Your task to perform on an android device: Check the weather Image 0: 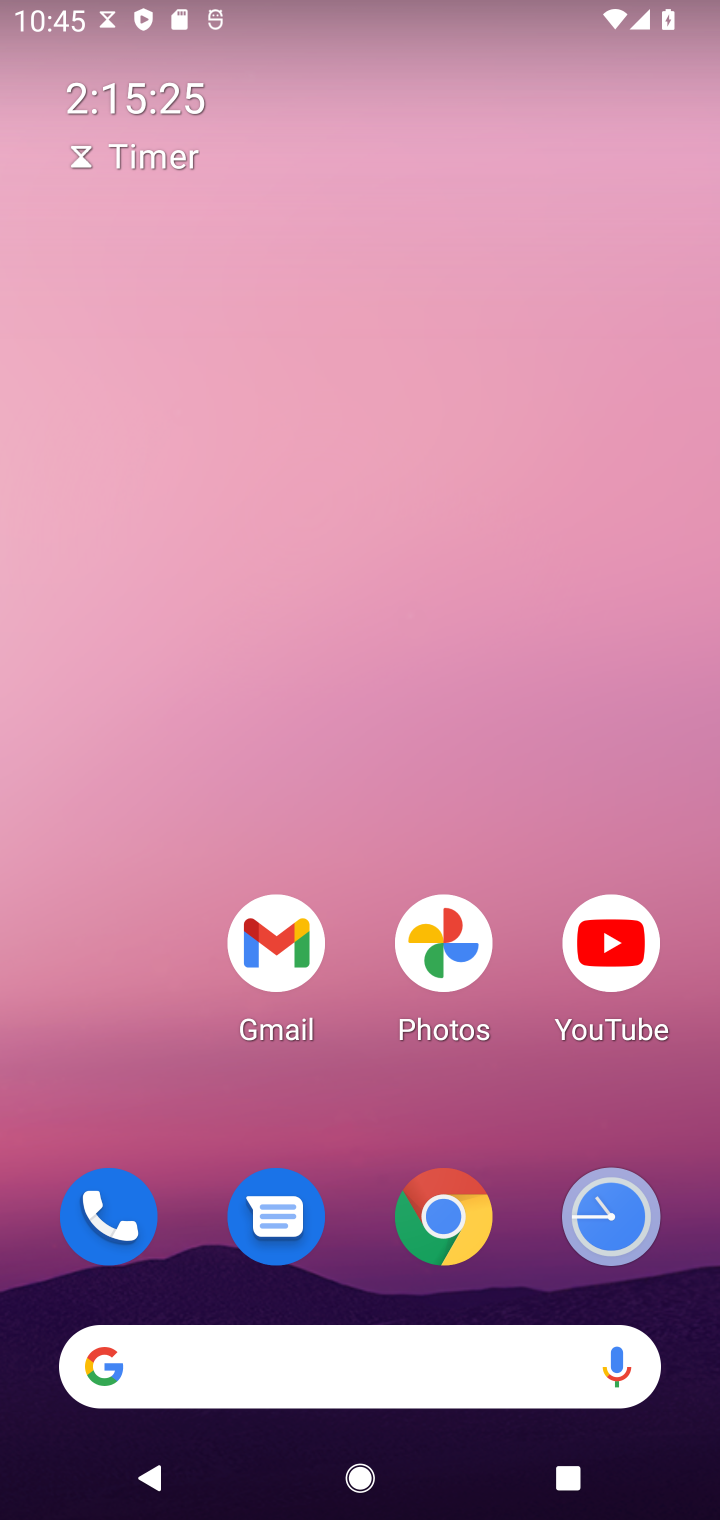
Step 0: click (339, 1358)
Your task to perform on an android device: Check the weather Image 1: 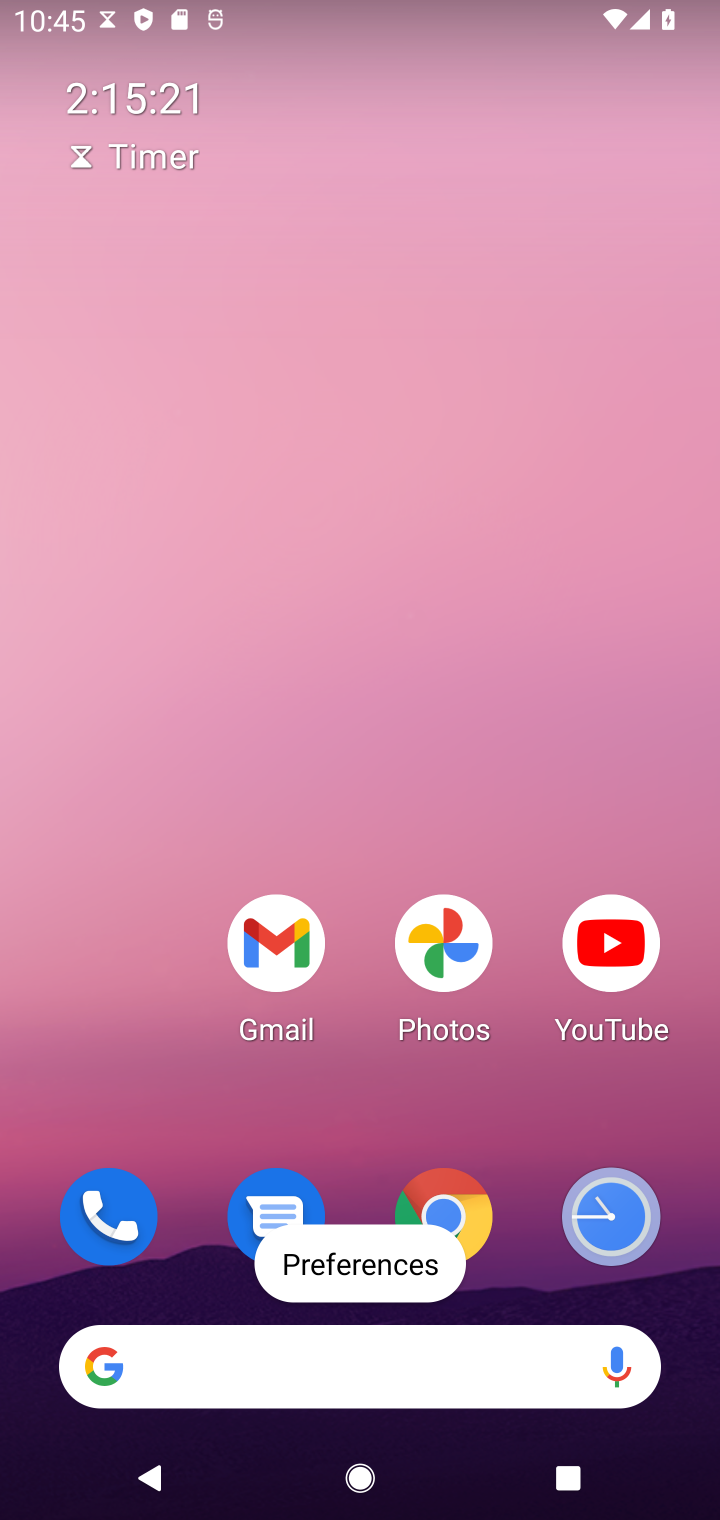
Step 1: click (315, 1371)
Your task to perform on an android device: Check the weather Image 2: 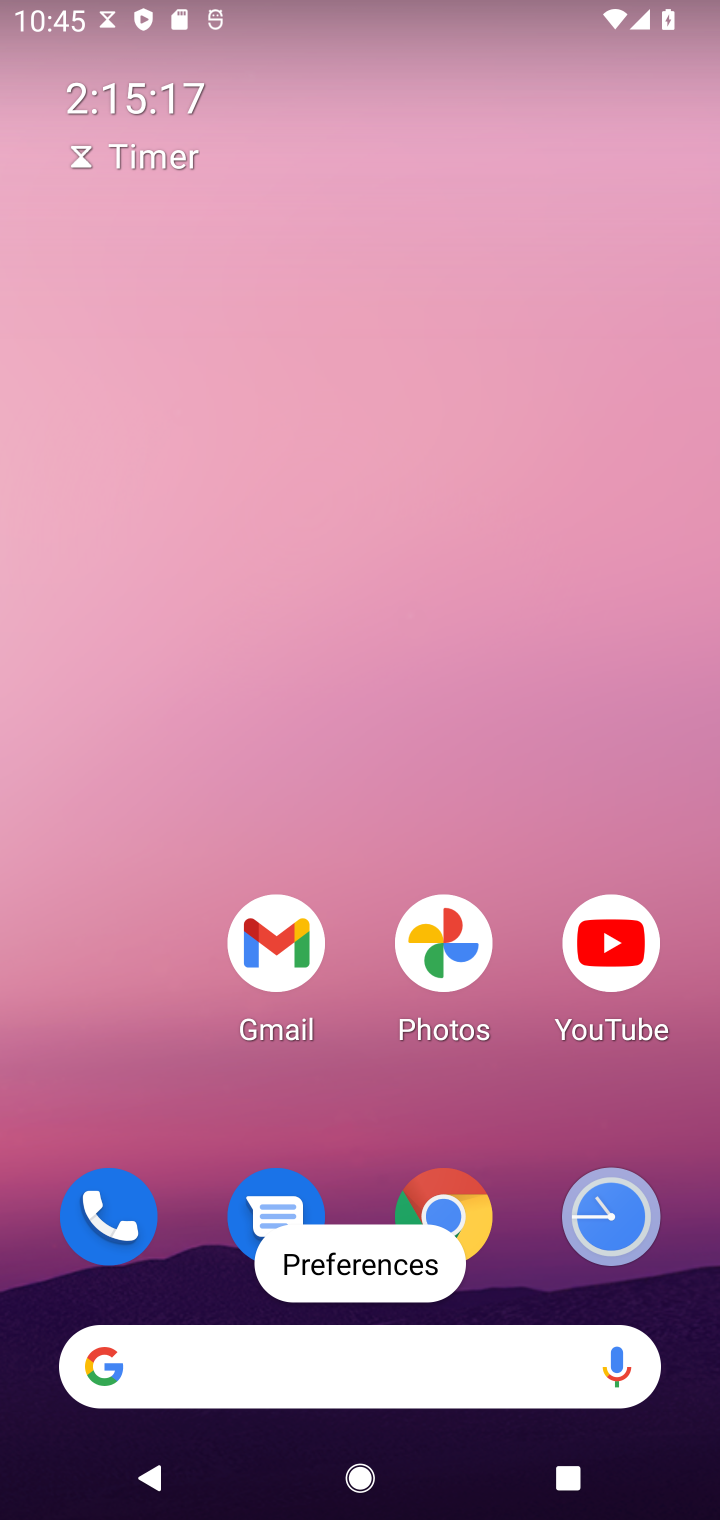
Step 2: click (315, 1367)
Your task to perform on an android device: Check the weather Image 3: 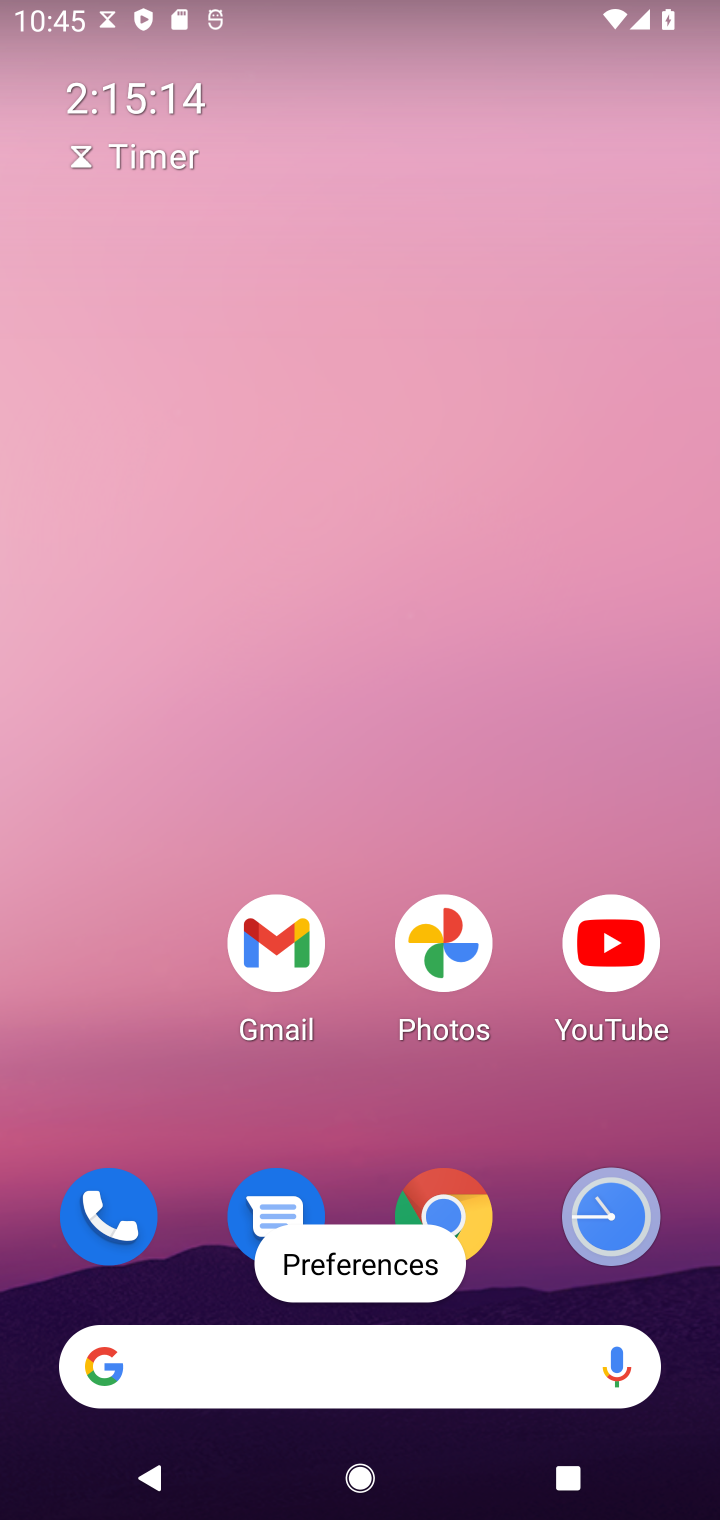
Step 3: click (213, 1340)
Your task to perform on an android device: Check the weather Image 4: 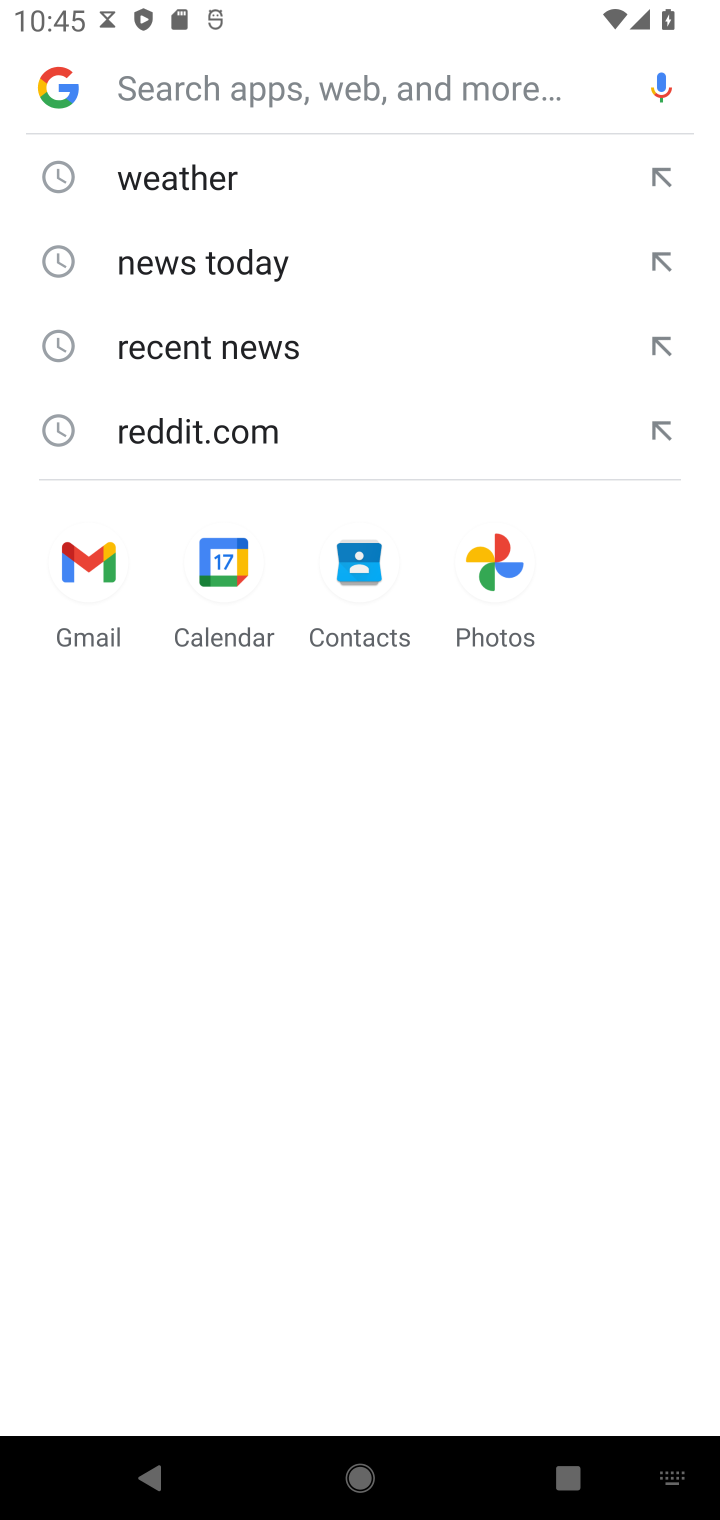
Step 4: click (198, 172)
Your task to perform on an android device: Check the weather Image 5: 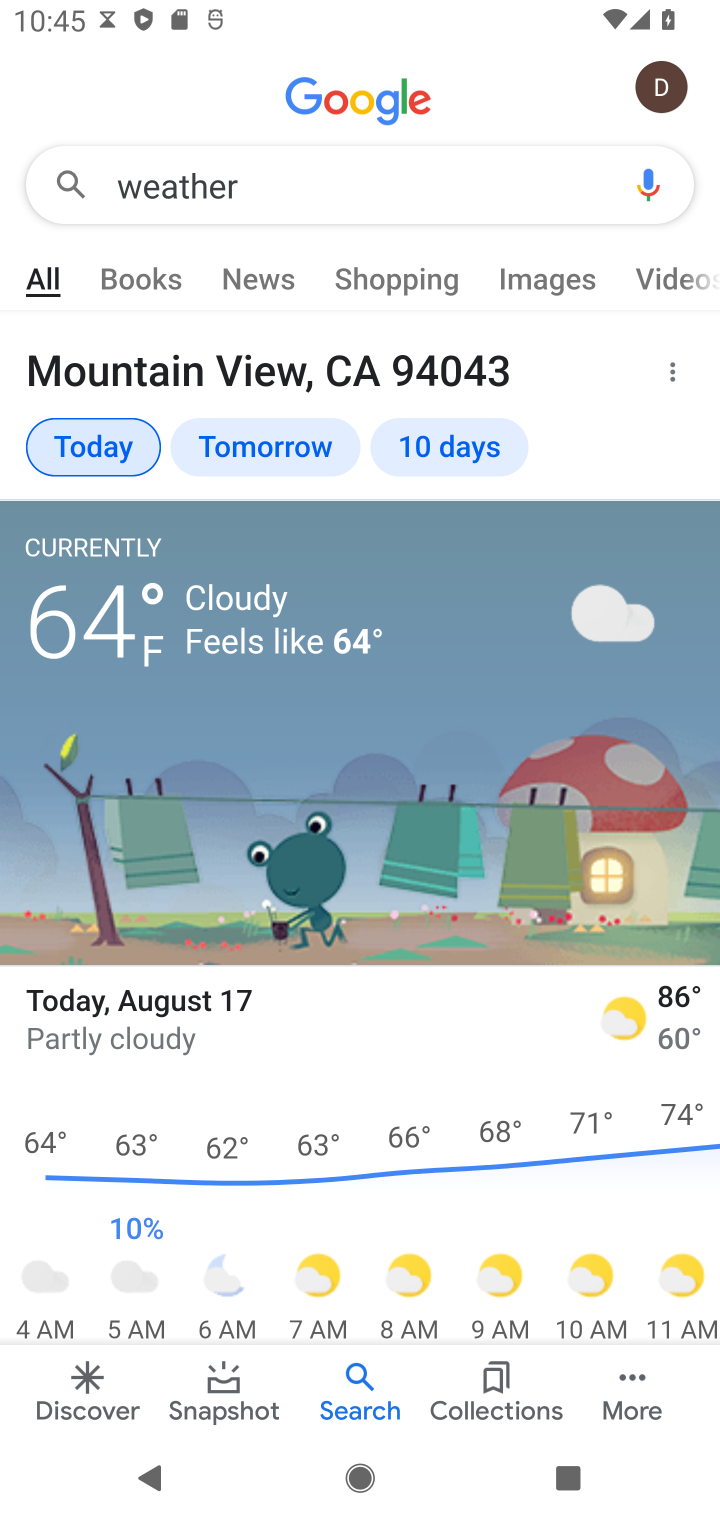
Step 5: task complete